Your task to perform on an android device: Show me popular games on the Play Store Image 0: 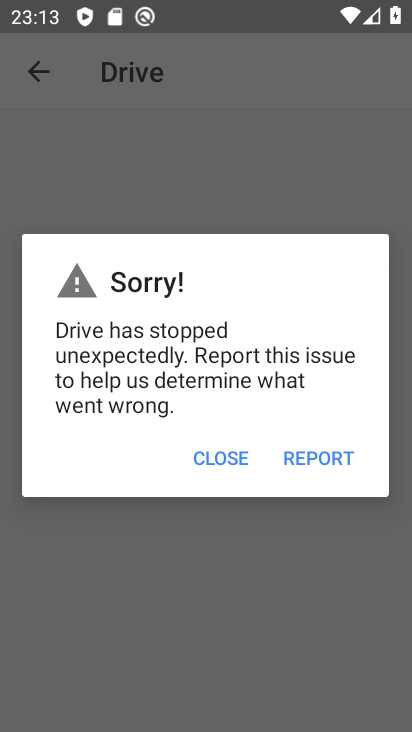
Step 0: press home button
Your task to perform on an android device: Show me popular games on the Play Store Image 1: 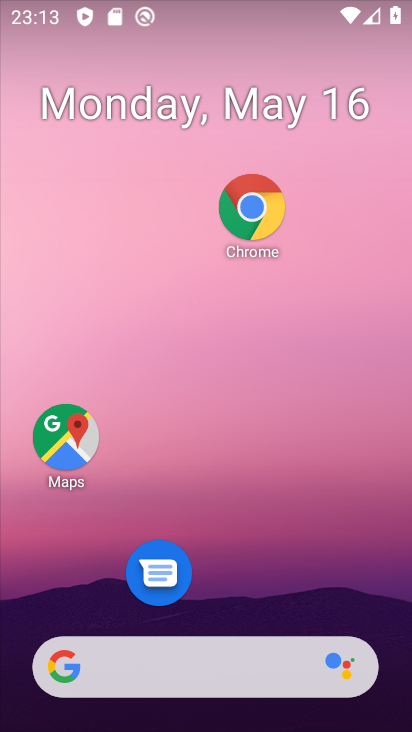
Step 1: drag from (293, 648) to (295, 5)
Your task to perform on an android device: Show me popular games on the Play Store Image 2: 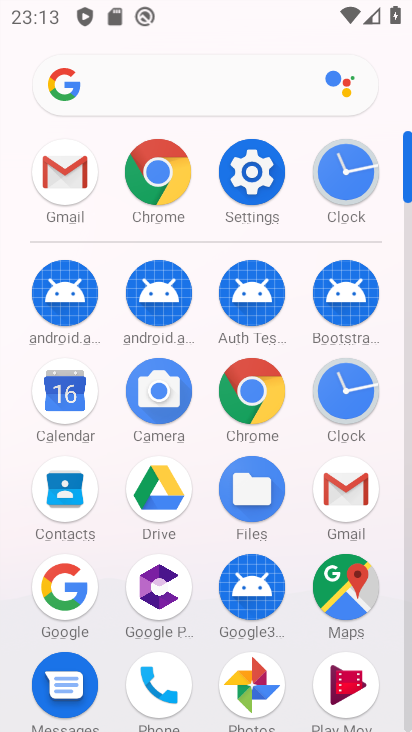
Step 2: drag from (272, 651) to (281, 121)
Your task to perform on an android device: Show me popular games on the Play Store Image 3: 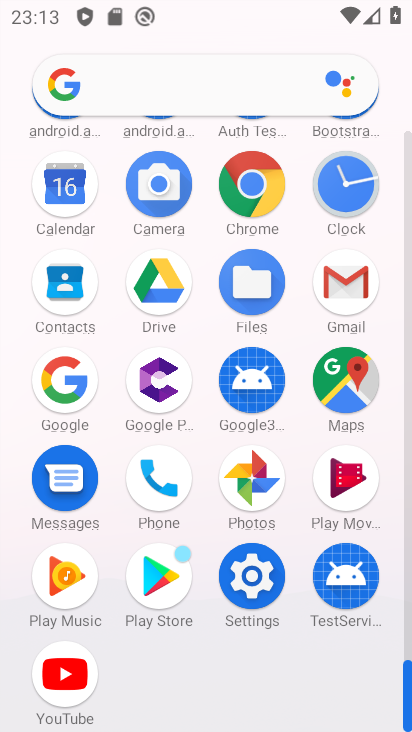
Step 3: click (165, 578)
Your task to perform on an android device: Show me popular games on the Play Store Image 4: 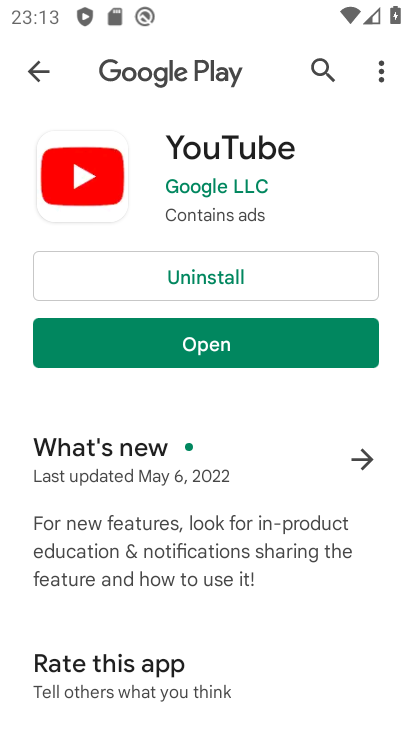
Step 4: press back button
Your task to perform on an android device: Show me popular games on the Play Store Image 5: 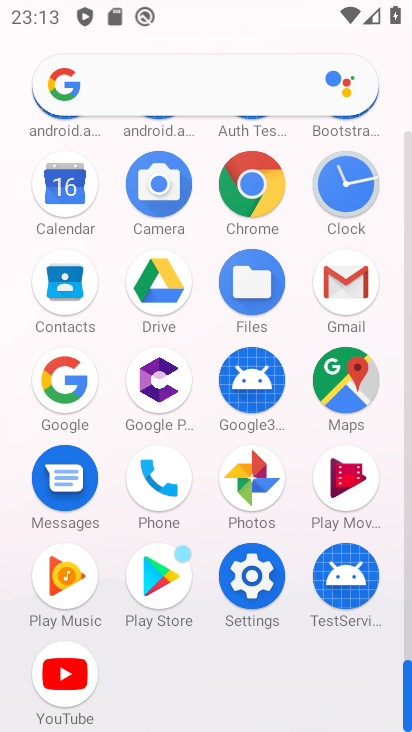
Step 5: click (176, 573)
Your task to perform on an android device: Show me popular games on the Play Store Image 6: 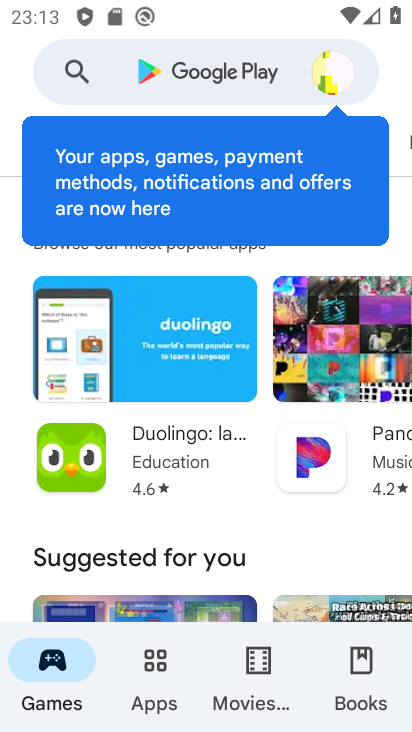
Step 6: drag from (291, 539) to (335, 160)
Your task to perform on an android device: Show me popular games on the Play Store Image 7: 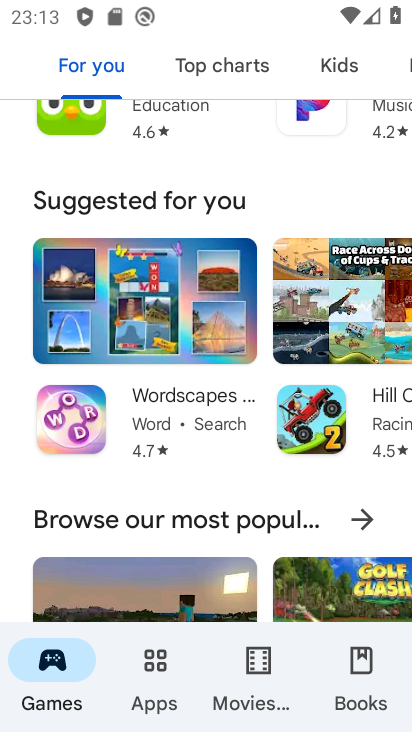
Step 7: click (359, 514)
Your task to perform on an android device: Show me popular games on the Play Store Image 8: 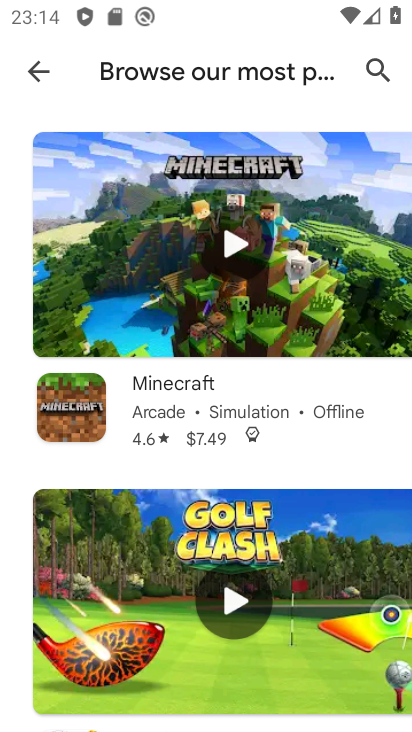
Step 8: task complete